Your task to perform on an android device: Check the settings for the YouTube app Image 0: 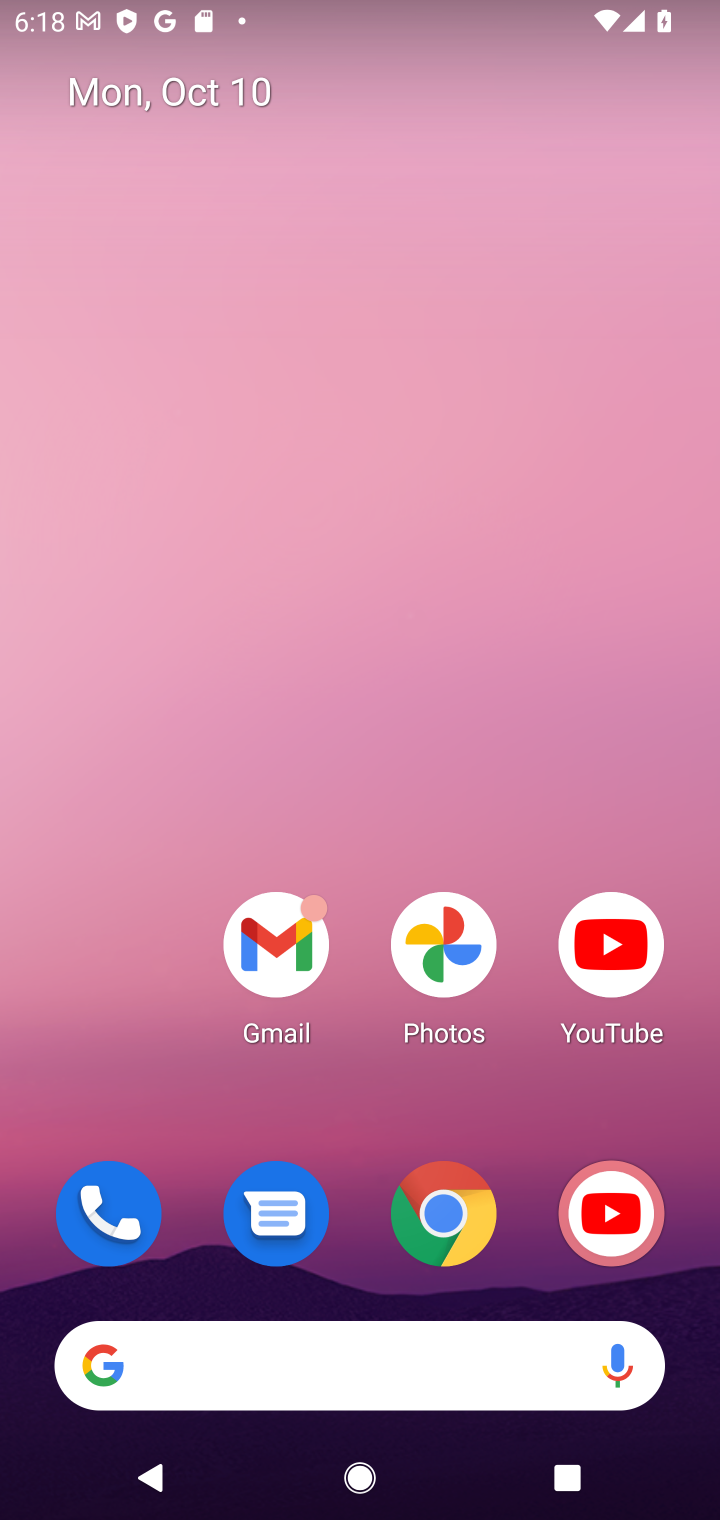
Step 0: click (612, 969)
Your task to perform on an android device: Check the settings for the YouTube app Image 1: 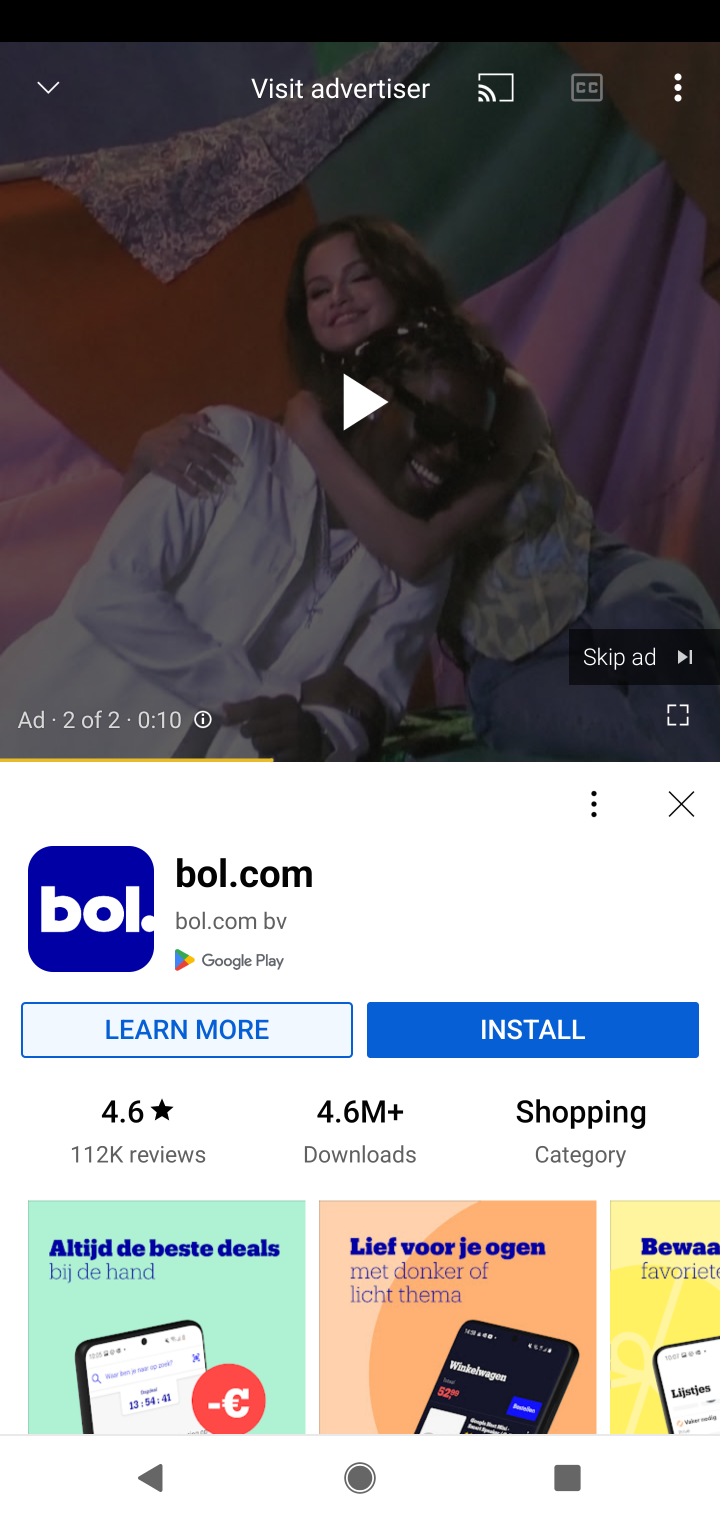
Step 1: click (672, 793)
Your task to perform on an android device: Check the settings for the YouTube app Image 2: 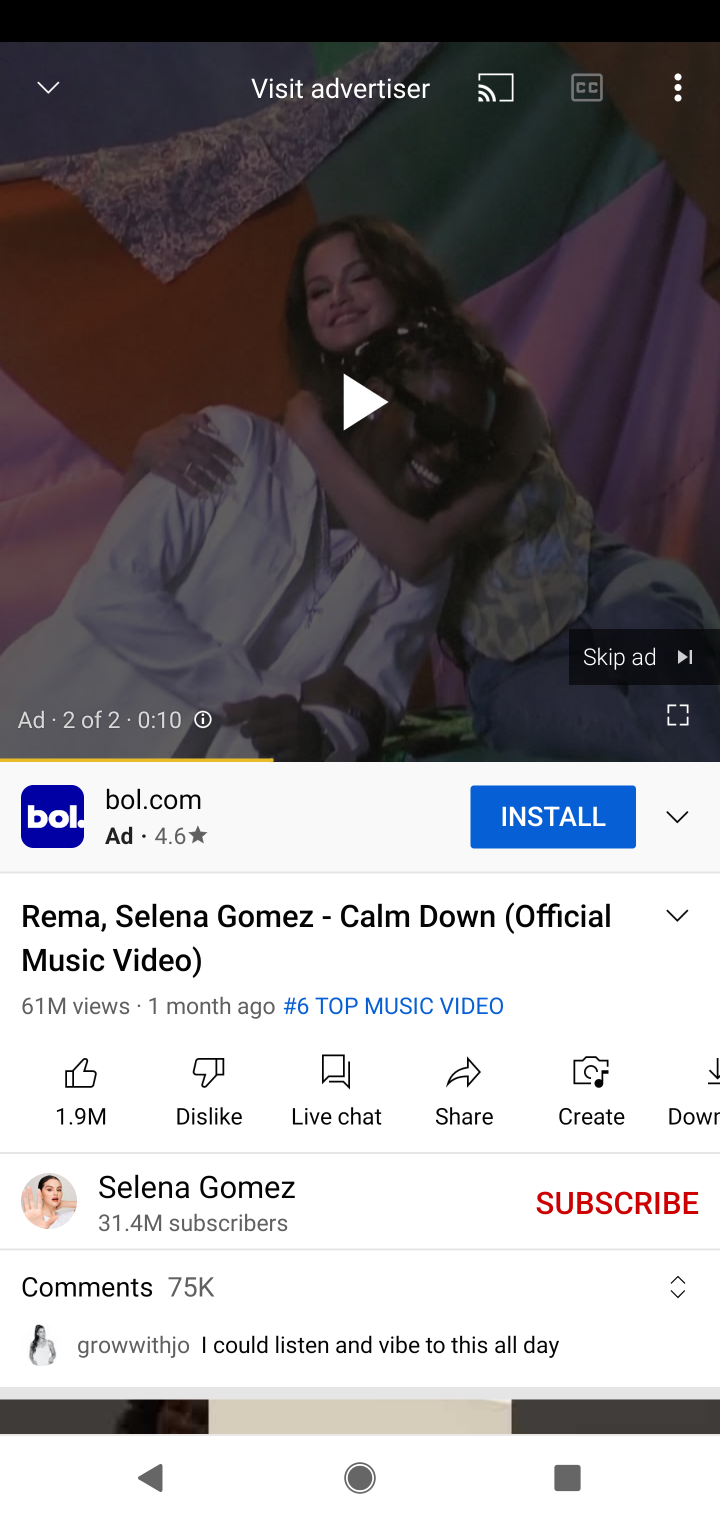
Step 2: drag from (422, 264) to (391, 858)
Your task to perform on an android device: Check the settings for the YouTube app Image 3: 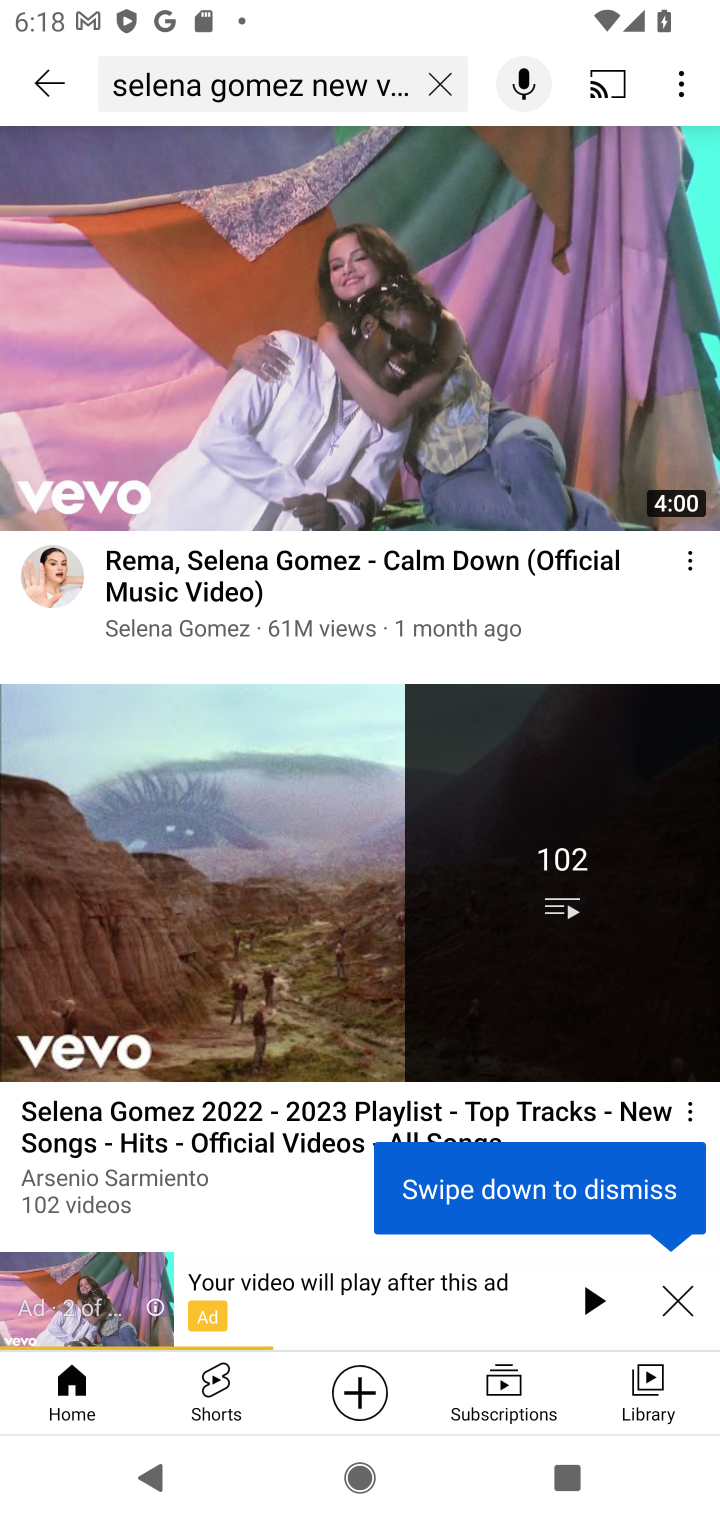
Step 3: click (678, 97)
Your task to perform on an android device: Check the settings for the YouTube app Image 4: 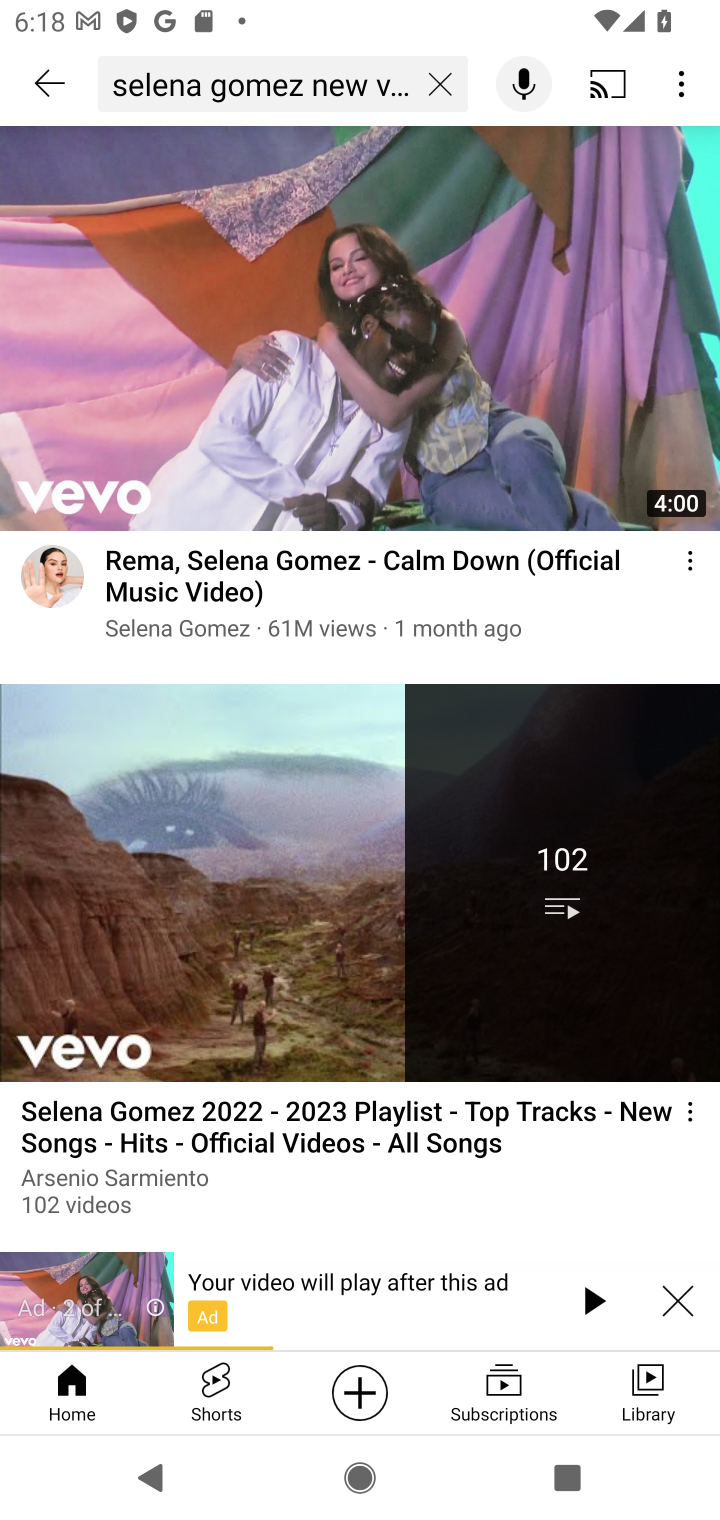
Step 4: click (678, 97)
Your task to perform on an android device: Check the settings for the YouTube app Image 5: 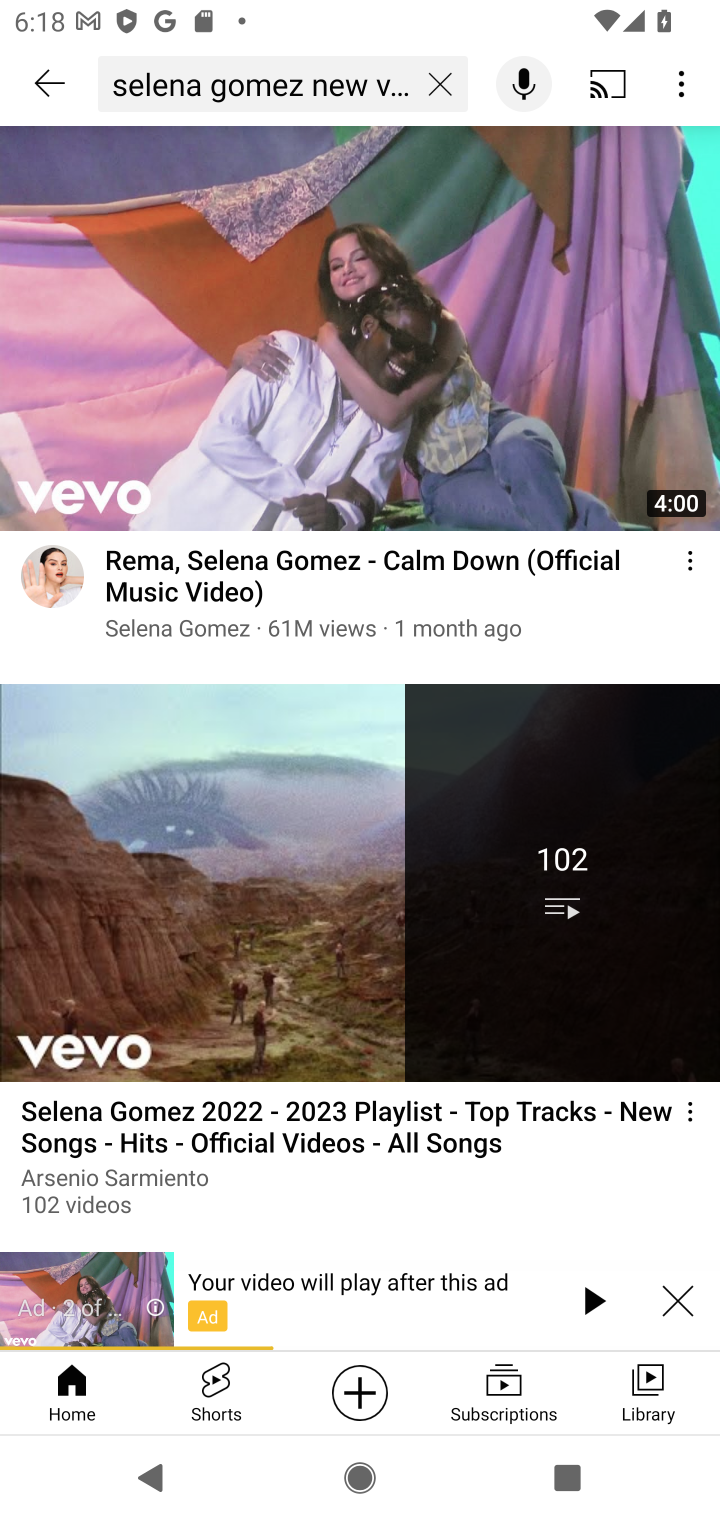
Step 5: click (687, 71)
Your task to perform on an android device: Check the settings for the YouTube app Image 6: 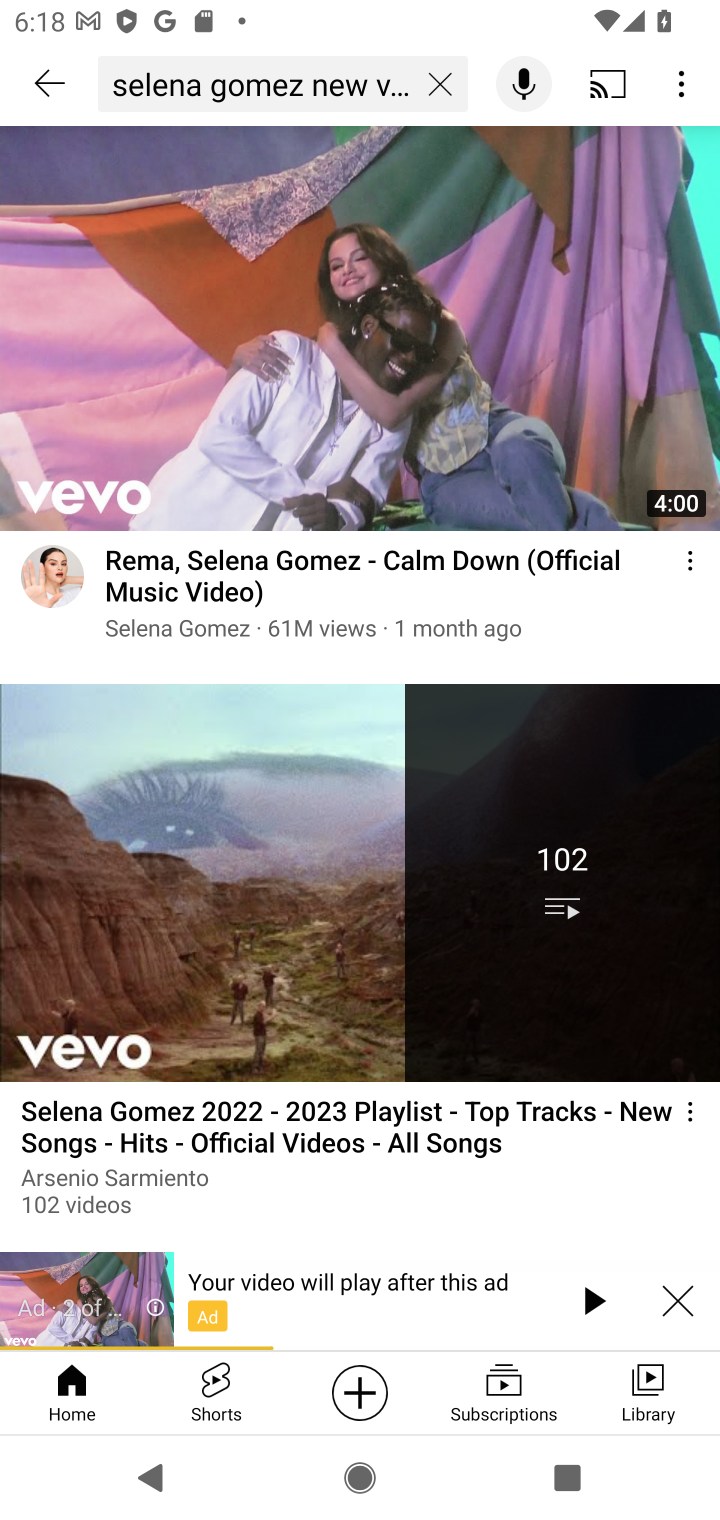
Step 6: click (682, 80)
Your task to perform on an android device: Check the settings for the YouTube app Image 7: 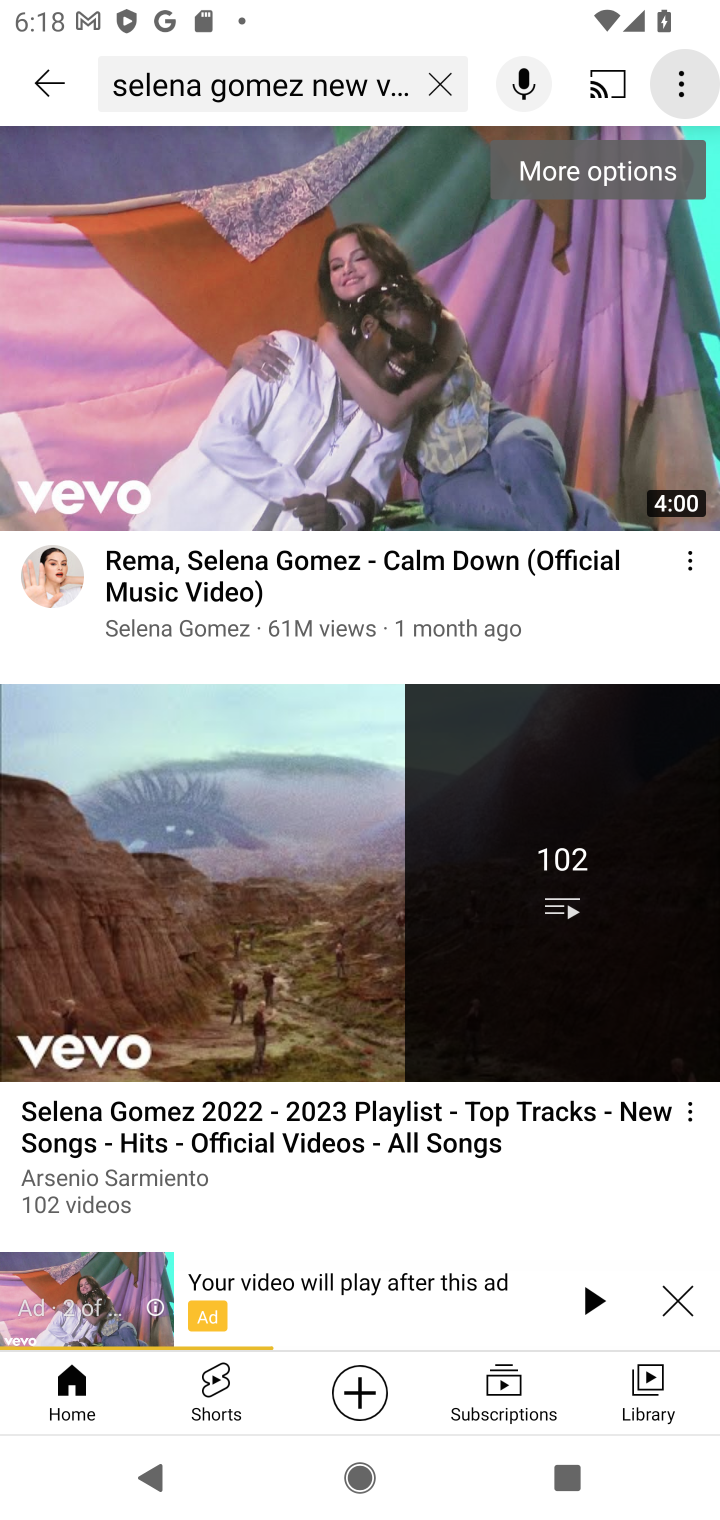
Step 7: click (682, 80)
Your task to perform on an android device: Check the settings for the YouTube app Image 8: 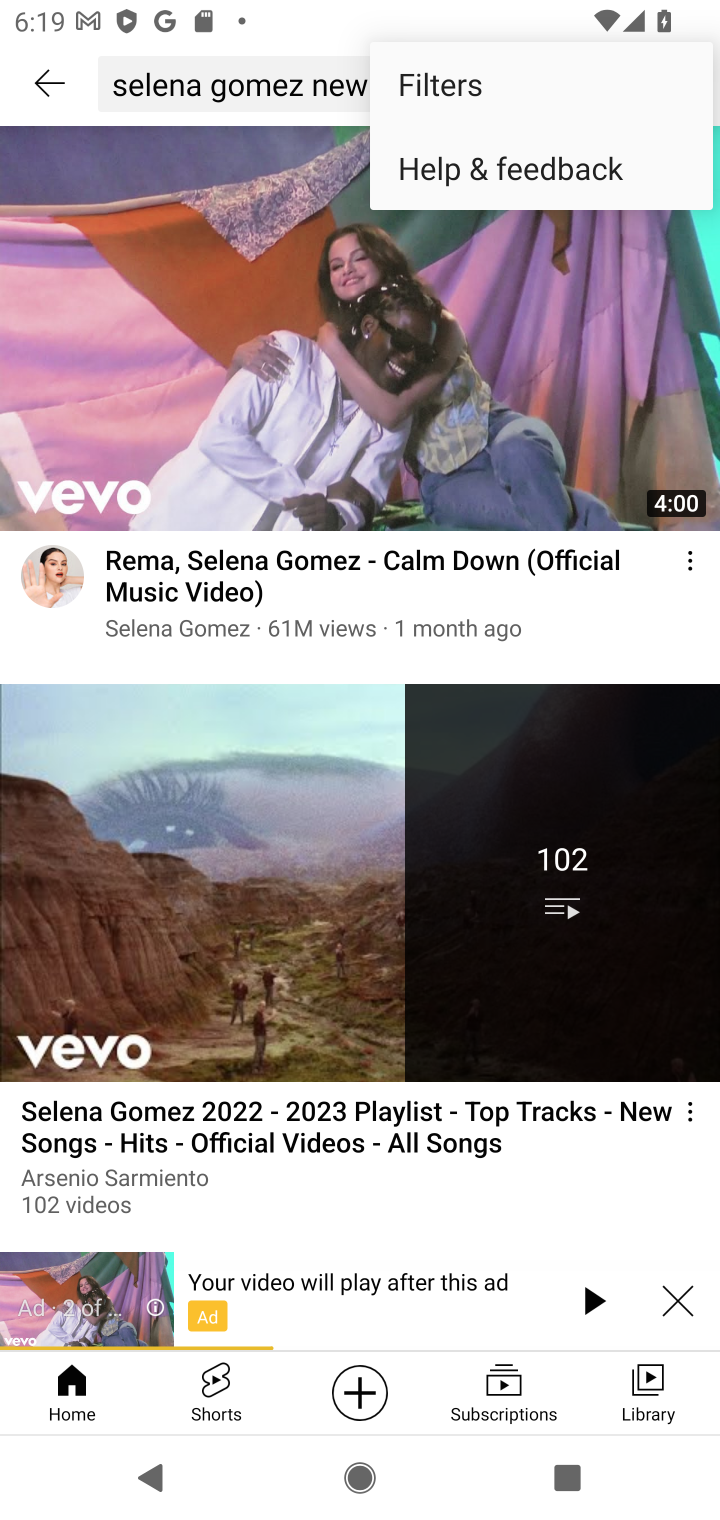
Step 8: click (406, 284)
Your task to perform on an android device: Check the settings for the YouTube app Image 9: 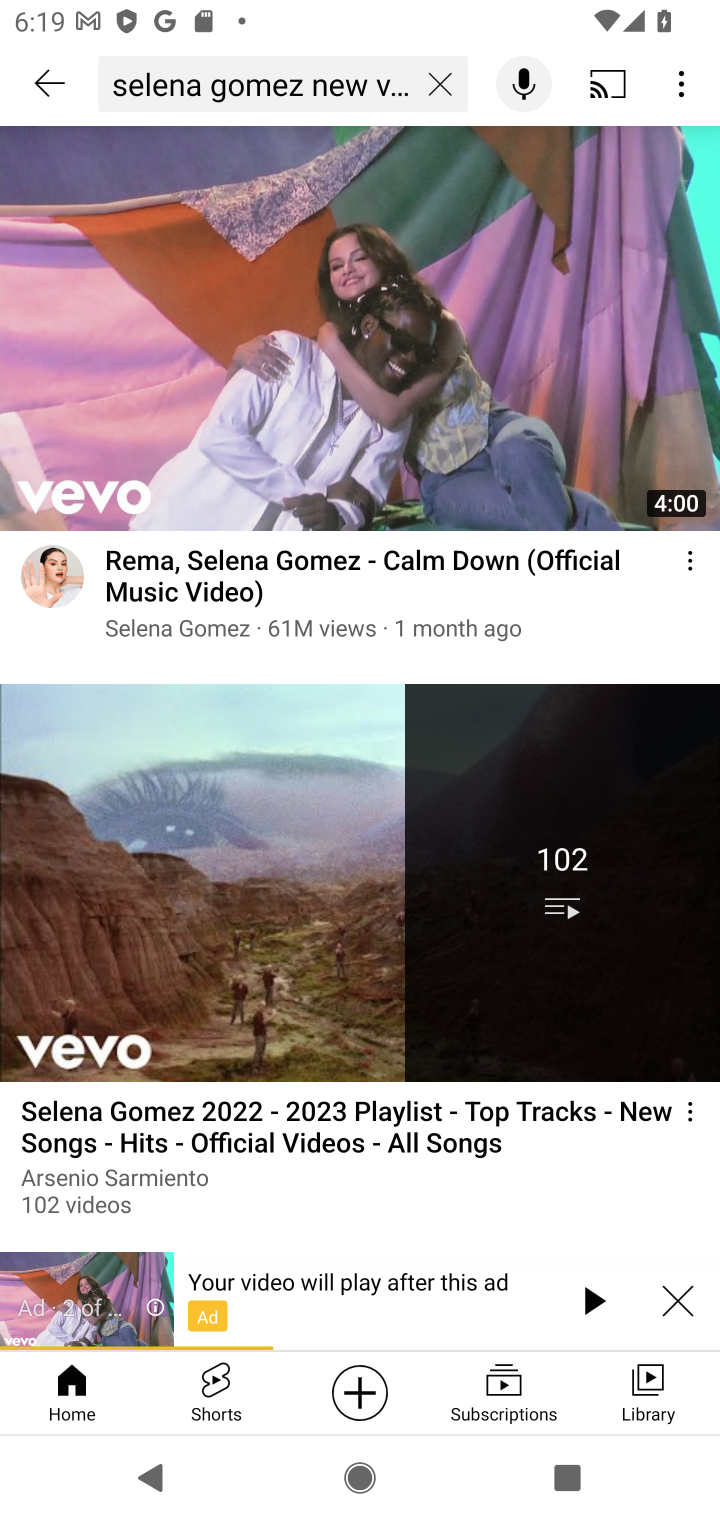
Step 9: click (637, 1388)
Your task to perform on an android device: Check the settings for the YouTube app Image 10: 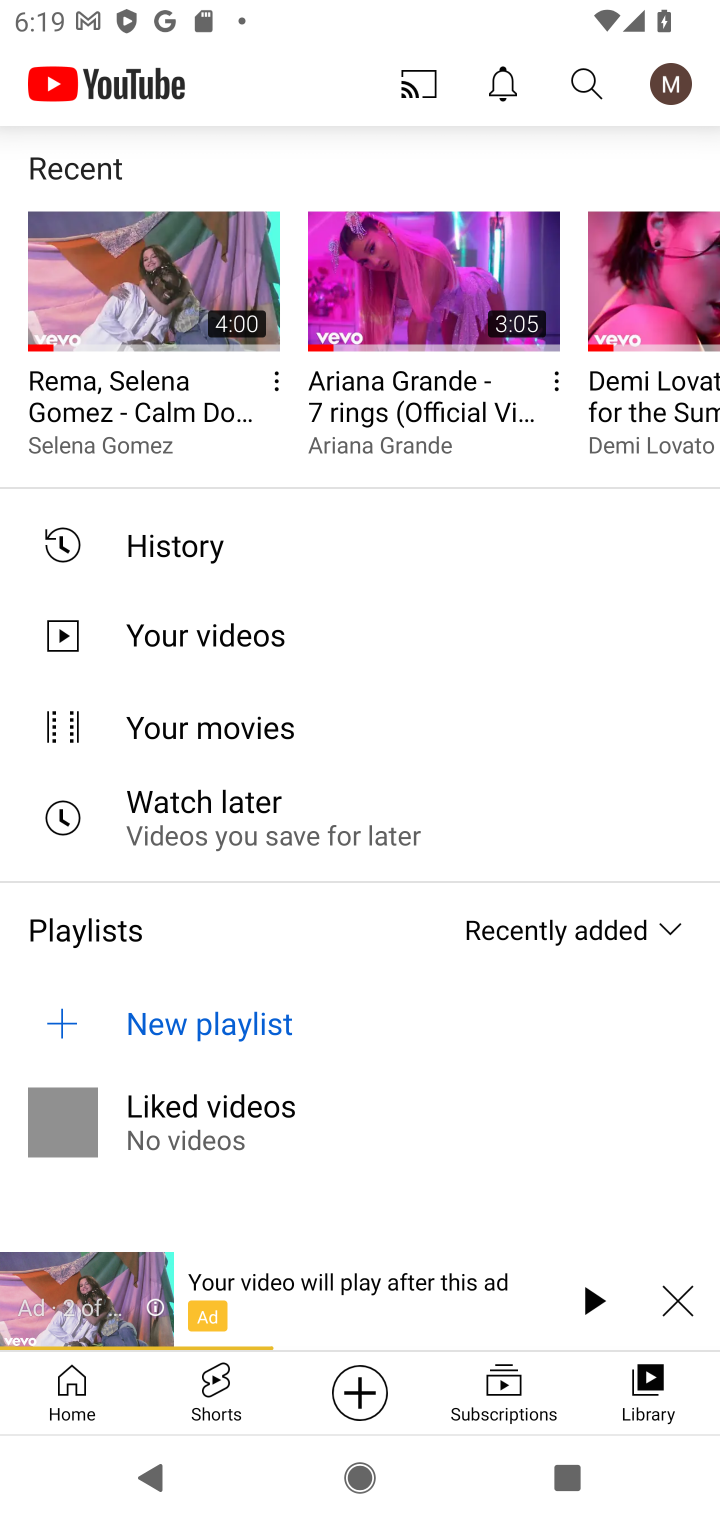
Step 10: drag from (309, 998) to (356, 375)
Your task to perform on an android device: Check the settings for the YouTube app Image 11: 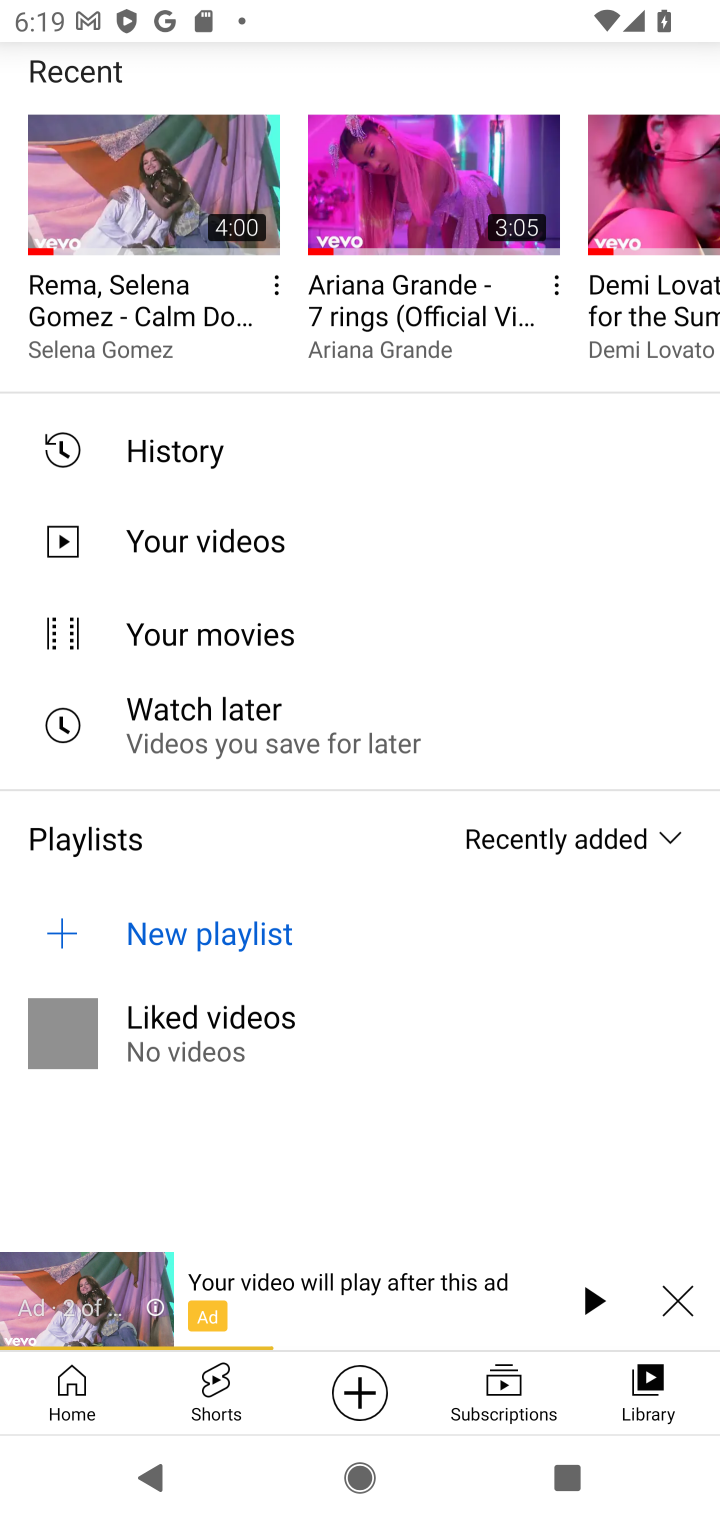
Step 11: drag from (296, 980) to (231, 326)
Your task to perform on an android device: Check the settings for the YouTube app Image 12: 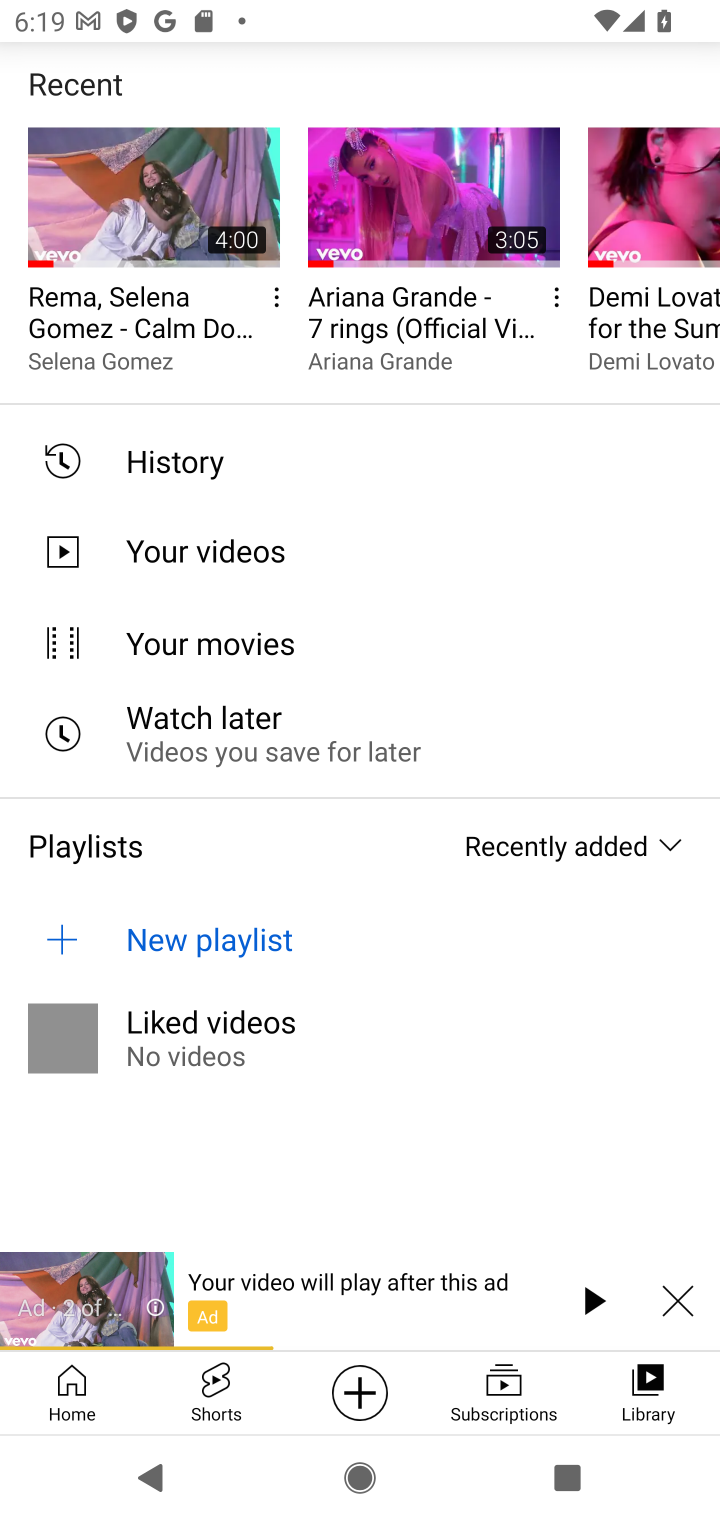
Step 12: drag from (282, 448) to (301, 729)
Your task to perform on an android device: Check the settings for the YouTube app Image 13: 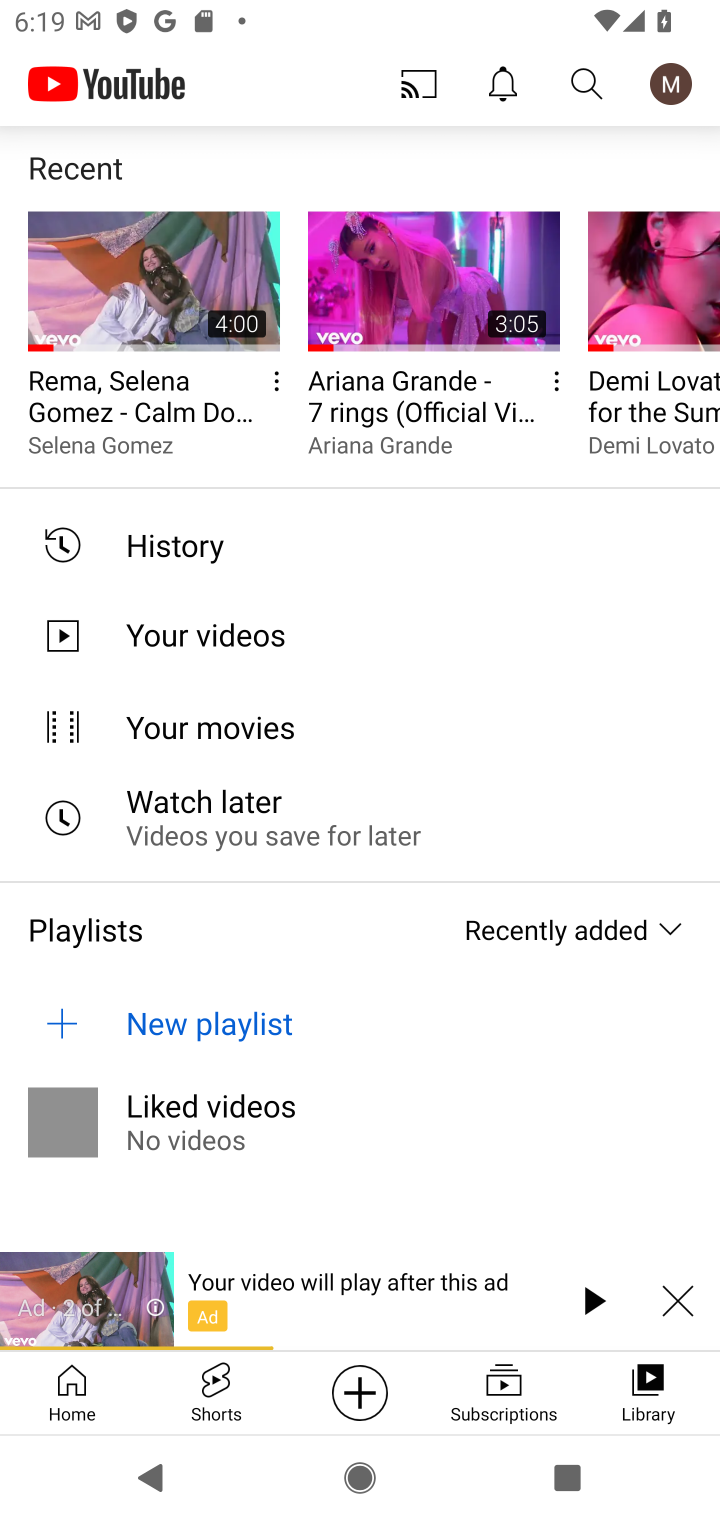
Step 13: click (665, 75)
Your task to perform on an android device: Check the settings for the YouTube app Image 14: 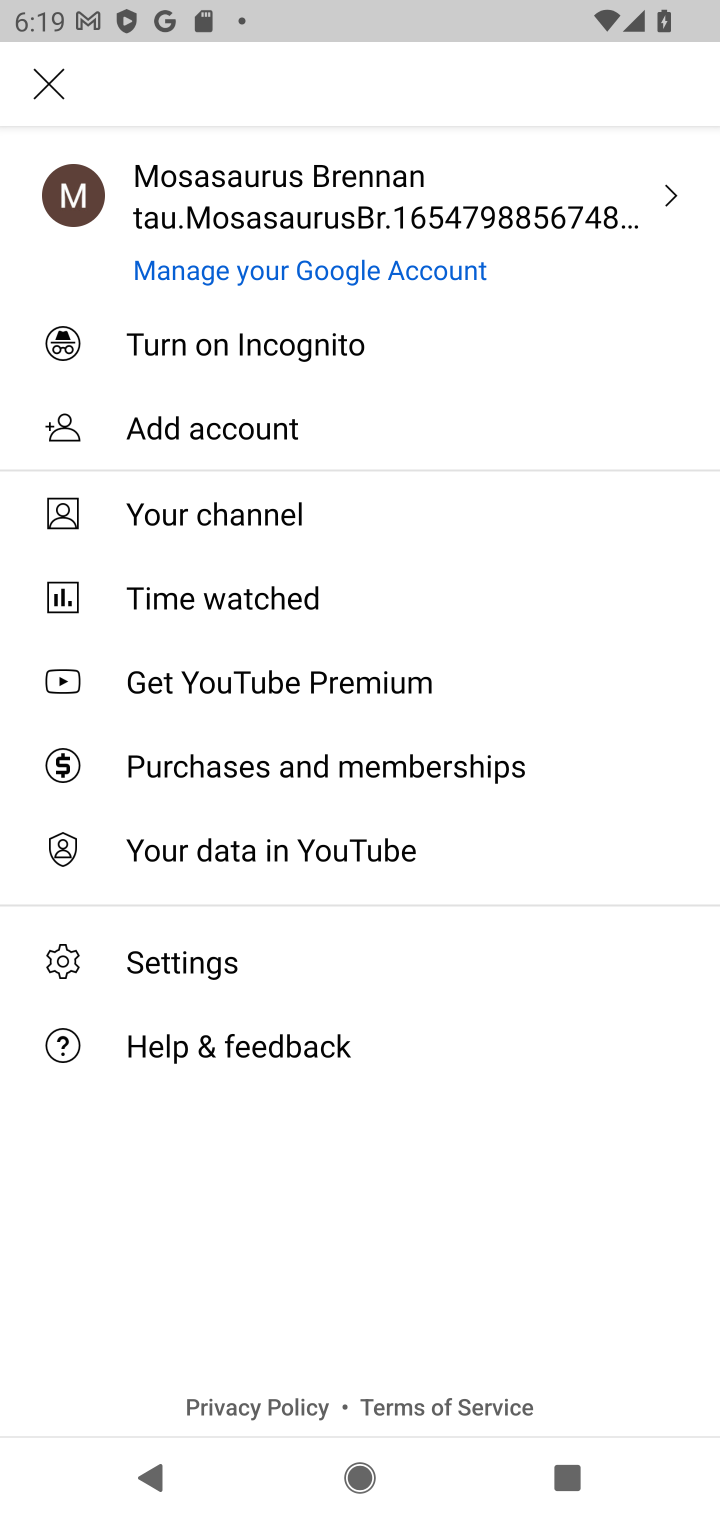
Step 14: click (202, 965)
Your task to perform on an android device: Check the settings for the YouTube app Image 15: 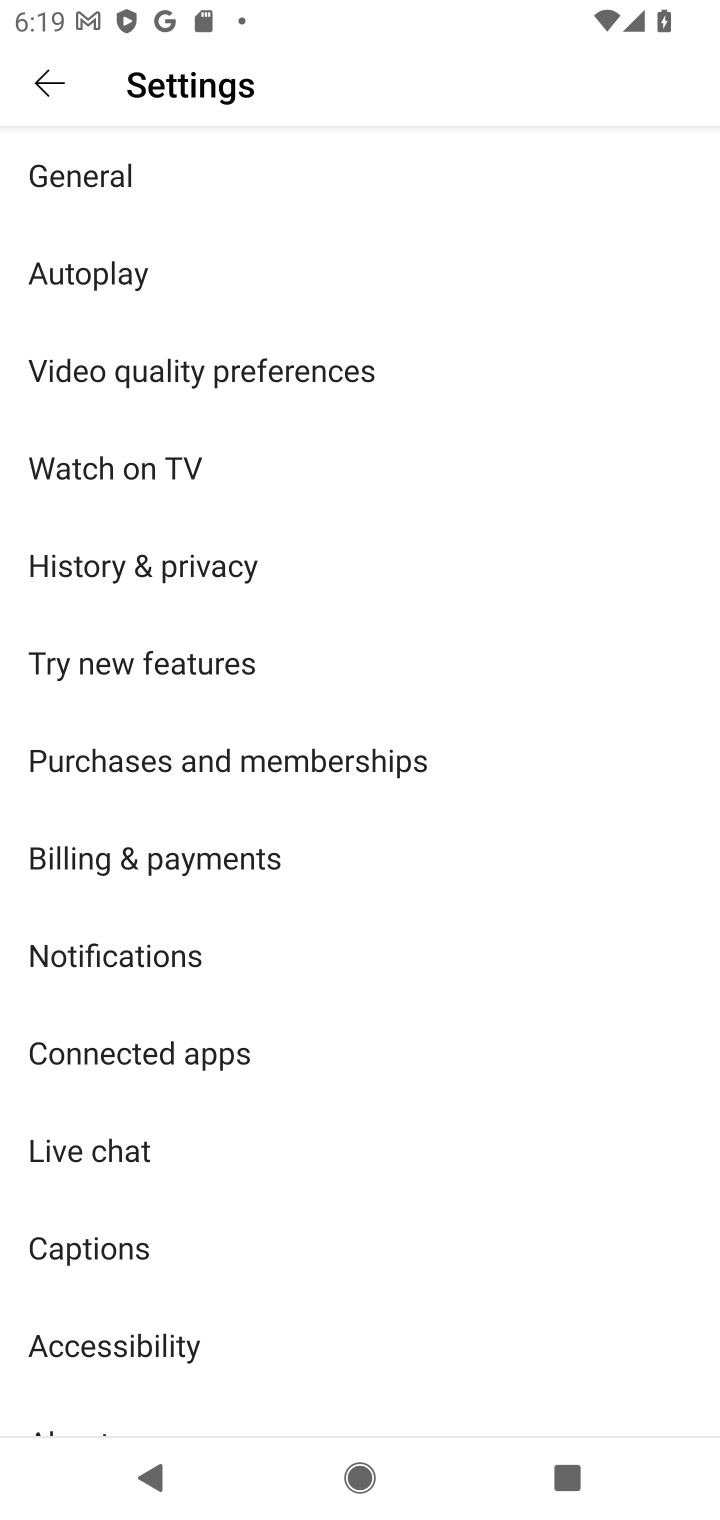
Step 15: click (117, 192)
Your task to perform on an android device: Check the settings for the YouTube app Image 16: 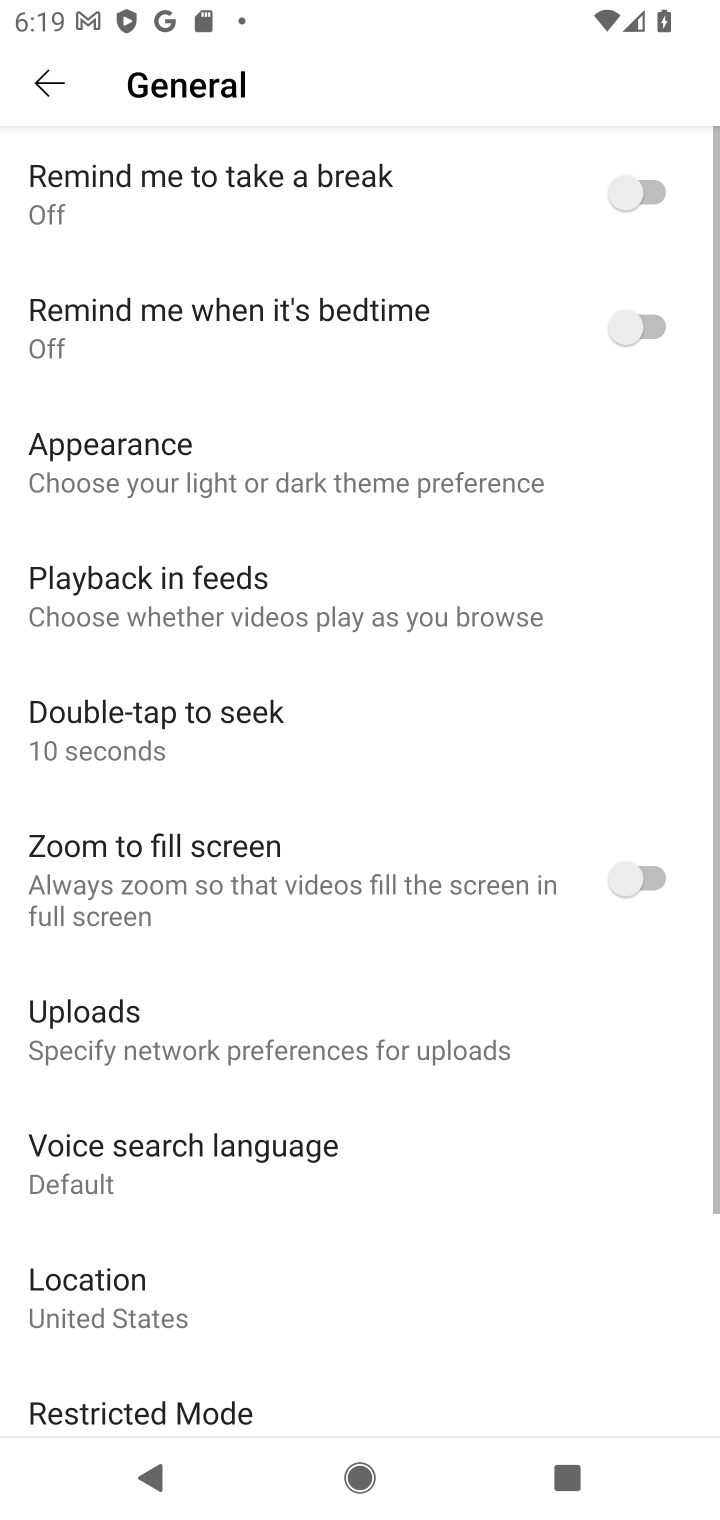
Step 16: task complete